Your task to perform on an android device: turn on notifications settings in the gmail app Image 0: 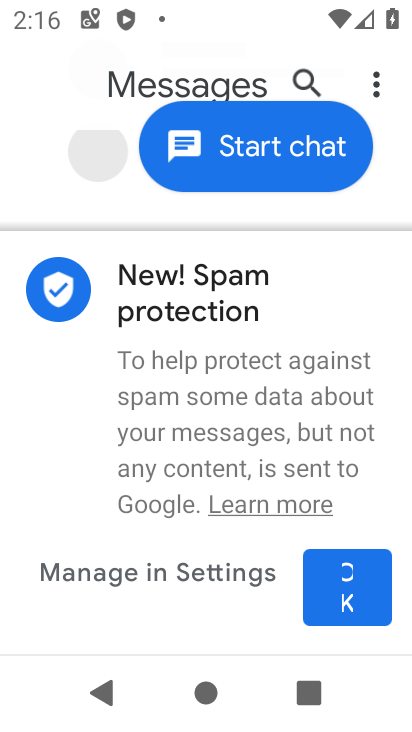
Step 0: press back button
Your task to perform on an android device: turn on notifications settings in the gmail app Image 1: 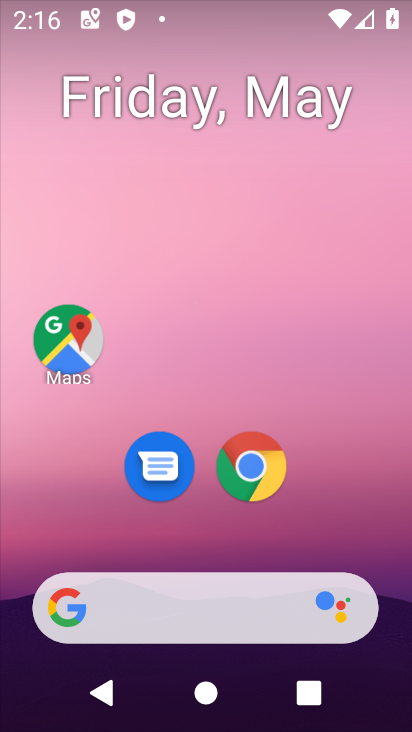
Step 1: drag from (251, 497) to (291, 60)
Your task to perform on an android device: turn on notifications settings in the gmail app Image 2: 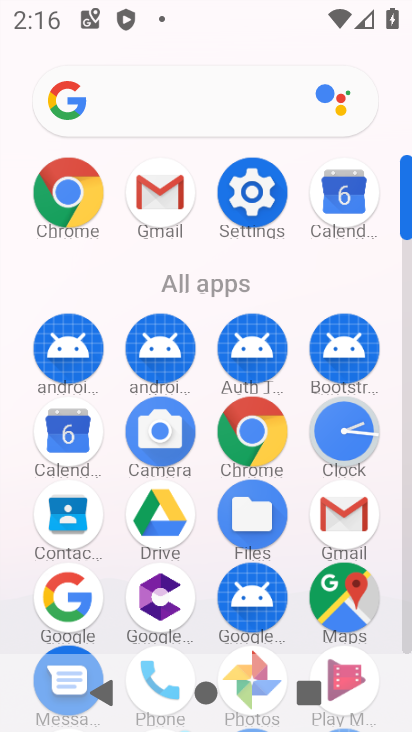
Step 2: click (164, 196)
Your task to perform on an android device: turn on notifications settings in the gmail app Image 3: 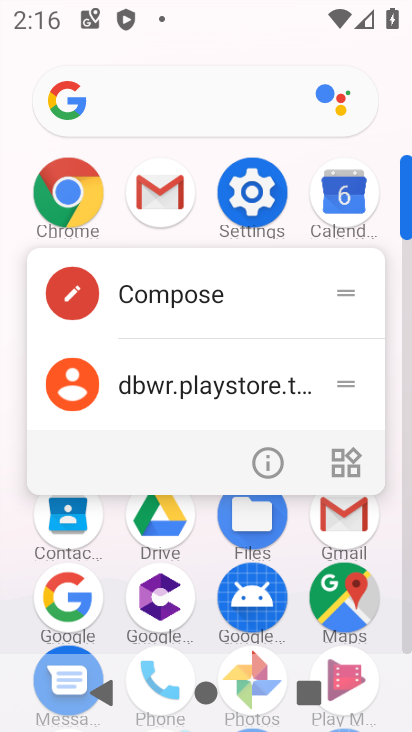
Step 3: click (256, 465)
Your task to perform on an android device: turn on notifications settings in the gmail app Image 4: 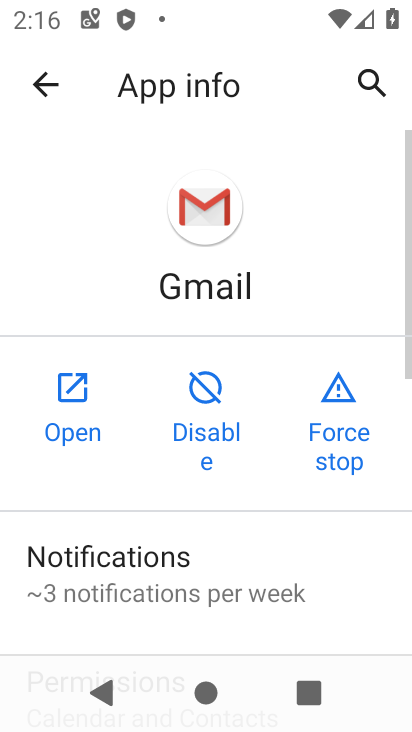
Step 4: click (132, 582)
Your task to perform on an android device: turn on notifications settings in the gmail app Image 5: 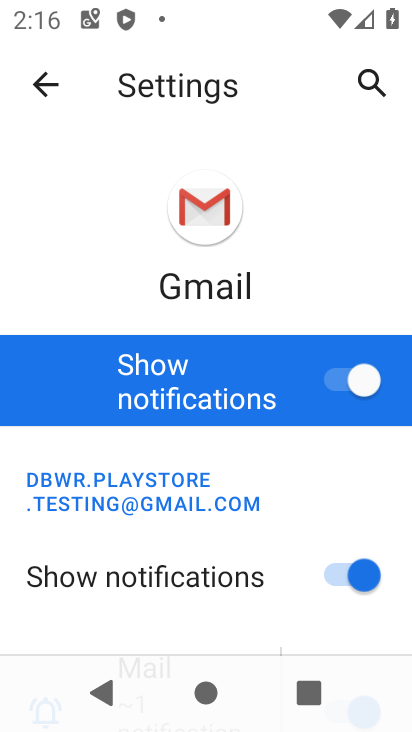
Step 5: task complete